Your task to perform on an android device: When is my next appointment? Image 0: 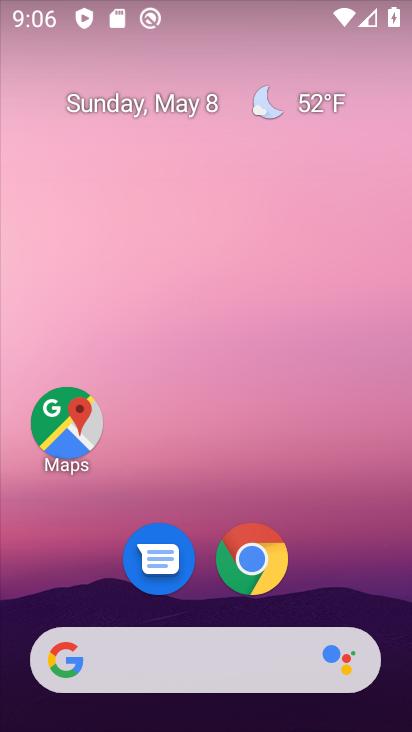
Step 0: drag from (336, 589) to (317, 92)
Your task to perform on an android device: When is my next appointment? Image 1: 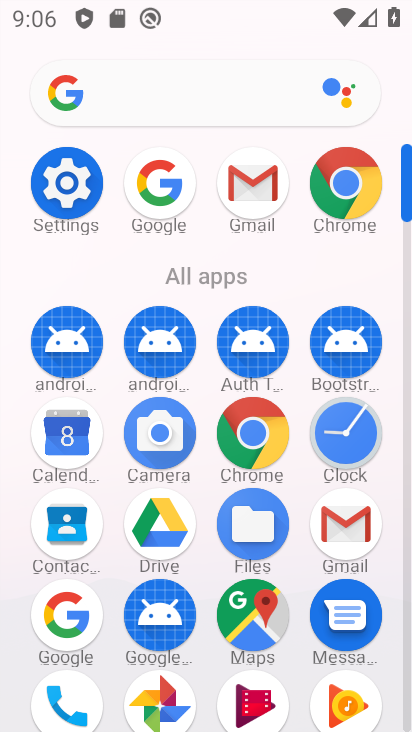
Step 1: click (75, 431)
Your task to perform on an android device: When is my next appointment? Image 2: 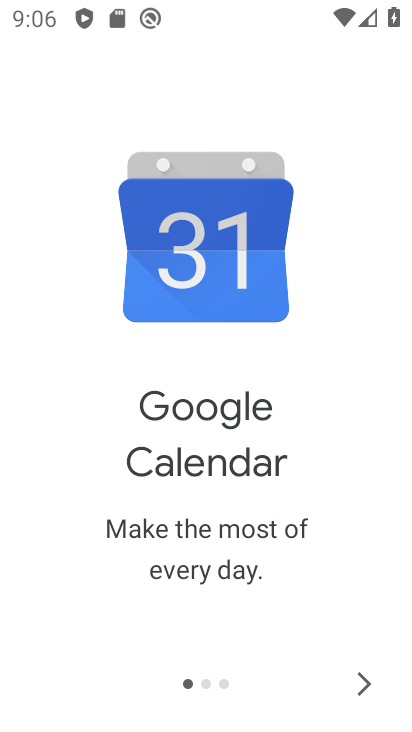
Step 2: click (377, 685)
Your task to perform on an android device: When is my next appointment? Image 3: 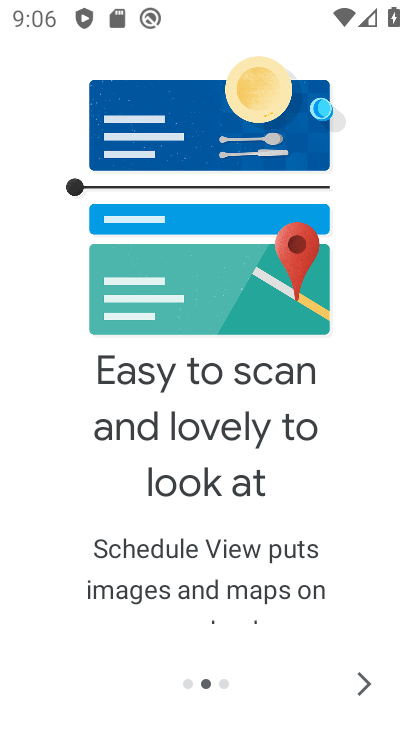
Step 3: click (371, 678)
Your task to perform on an android device: When is my next appointment? Image 4: 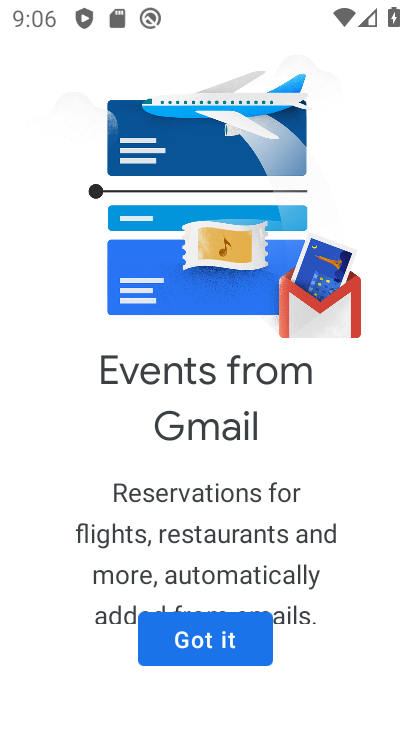
Step 4: click (238, 637)
Your task to perform on an android device: When is my next appointment? Image 5: 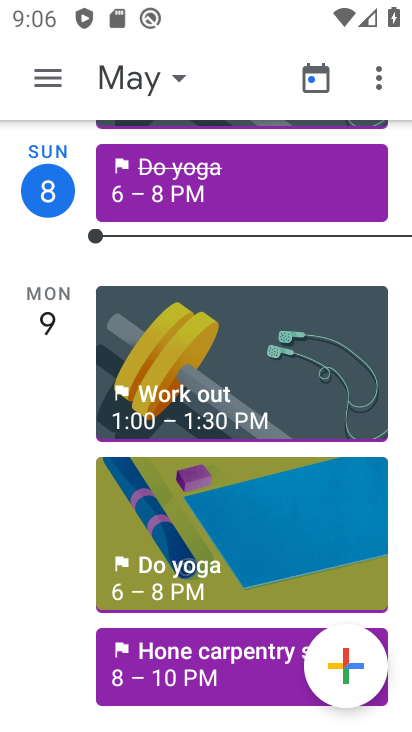
Step 5: drag from (174, 544) to (159, 57)
Your task to perform on an android device: When is my next appointment? Image 6: 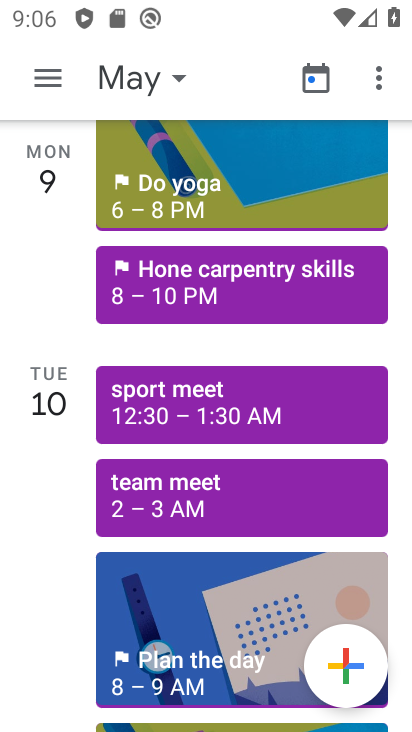
Step 6: drag from (191, 543) to (165, 408)
Your task to perform on an android device: When is my next appointment? Image 7: 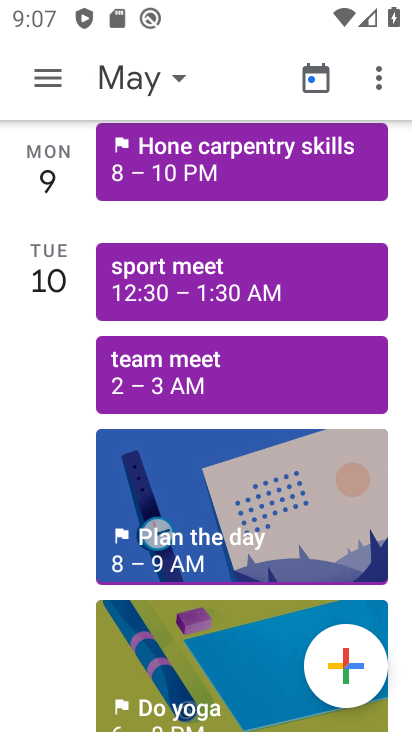
Step 7: click (180, 268)
Your task to perform on an android device: When is my next appointment? Image 8: 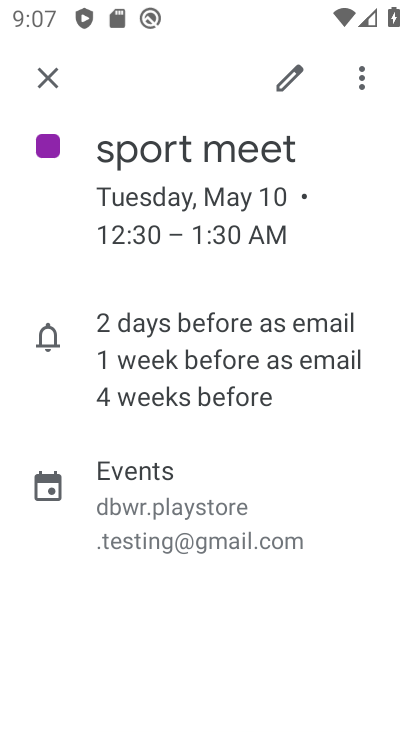
Step 8: task complete